Your task to perform on an android device: turn off notifications settings in the gmail app Image 0: 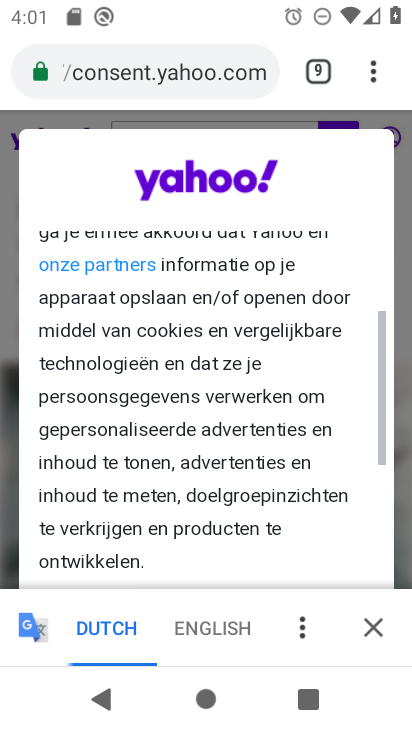
Step 0: press home button
Your task to perform on an android device: turn off notifications settings in the gmail app Image 1: 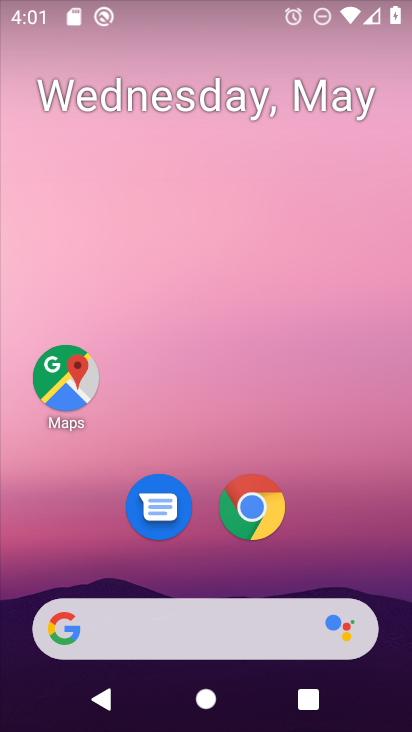
Step 1: drag from (327, 540) to (297, 211)
Your task to perform on an android device: turn off notifications settings in the gmail app Image 2: 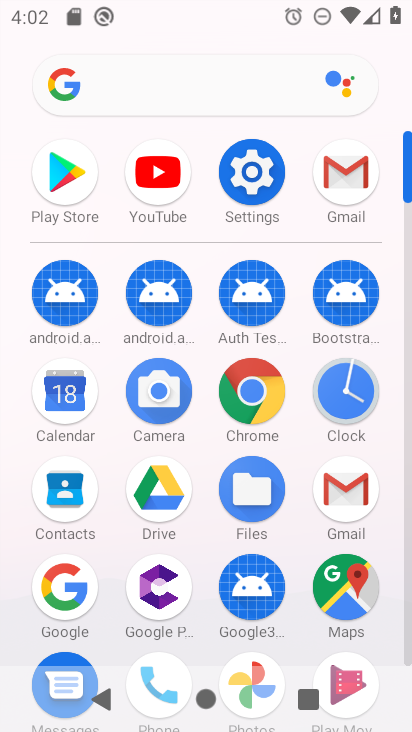
Step 2: drag from (353, 226) to (359, 146)
Your task to perform on an android device: turn off notifications settings in the gmail app Image 3: 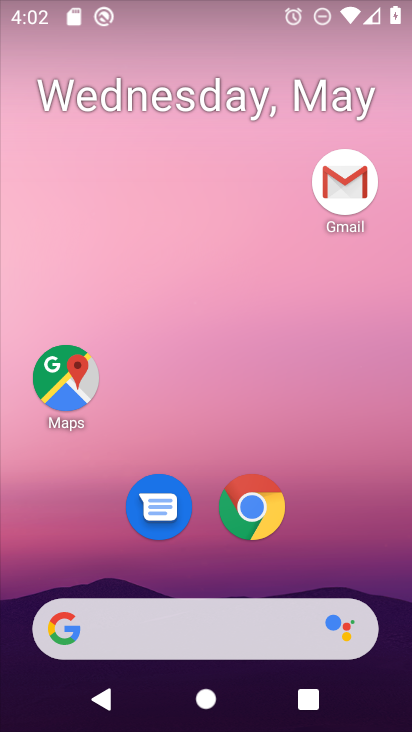
Step 3: click (351, 171)
Your task to perform on an android device: turn off notifications settings in the gmail app Image 4: 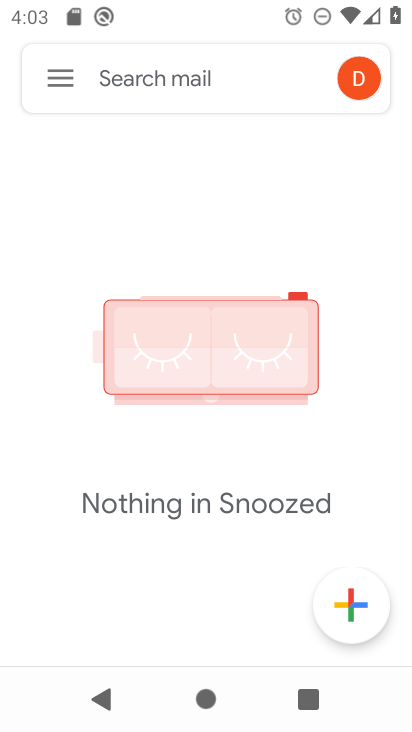
Step 4: click (65, 71)
Your task to perform on an android device: turn off notifications settings in the gmail app Image 5: 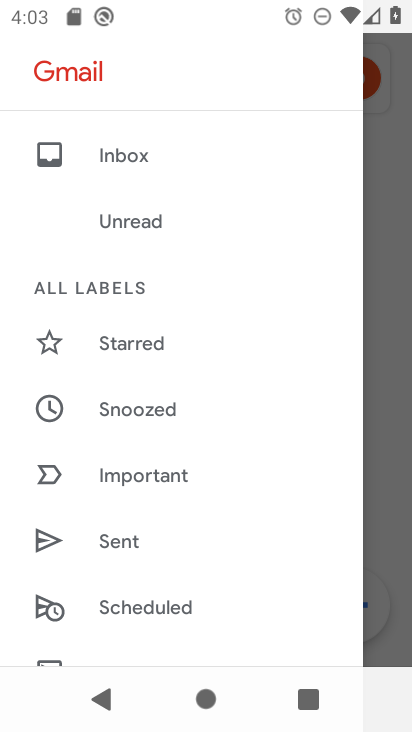
Step 5: drag from (235, 632) to (248, 342)
Your task to perform on an android device: turn off notifications settings in the gmail app Image 6: 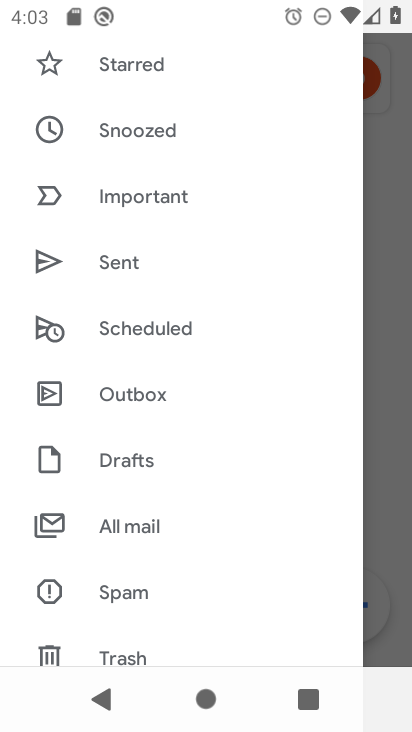
Step 6: drag from (252, 604) to (231, 297)
Your task to perform on an android device: turn off notifications settings in the gmail app Image 7: 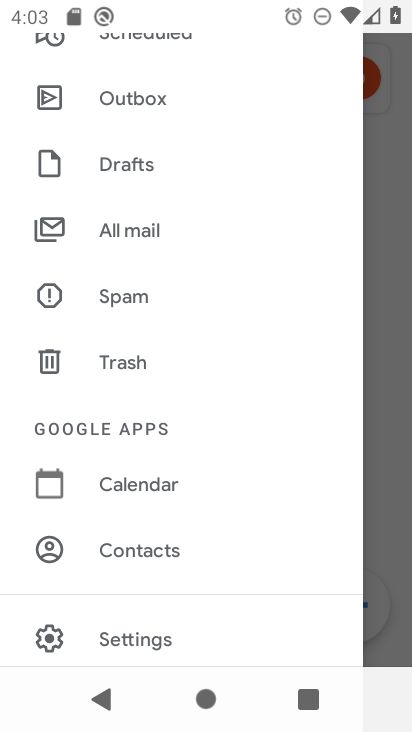
Step 7: click (124, 630)
Your task to perform on an android device: turn off notifications settings in the gmail app Image 8: 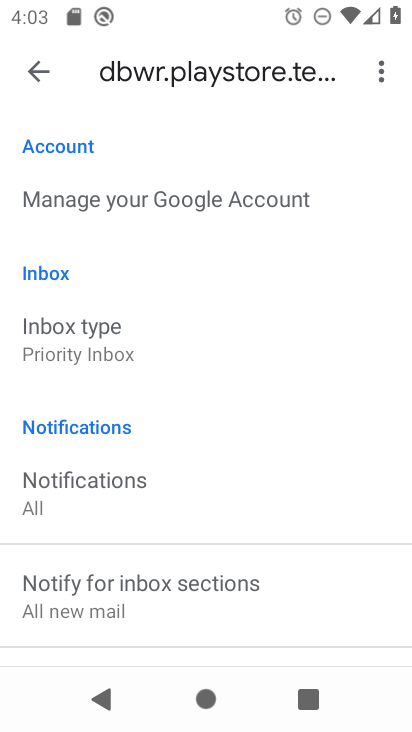
Step 8: drag from (158, 492) to (138, 312)
Your task to perform on an android device: turn off notifications settings in the gmail app Image 9: 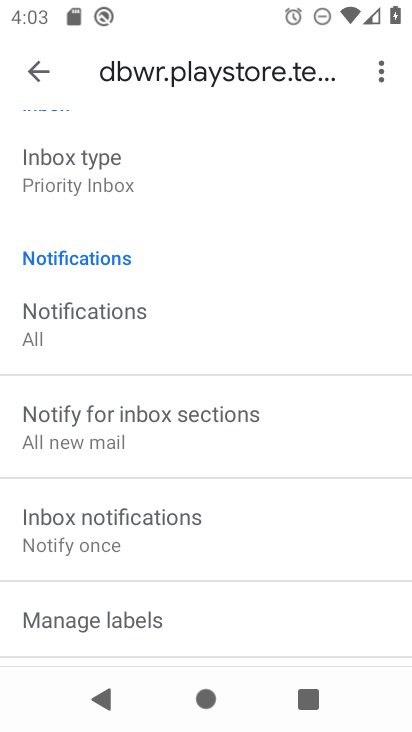
Step 9: drag from (206, 605) to (227, 304)
Your task to perform on an android device: turn off notifications settings in the gmail app Image 10: 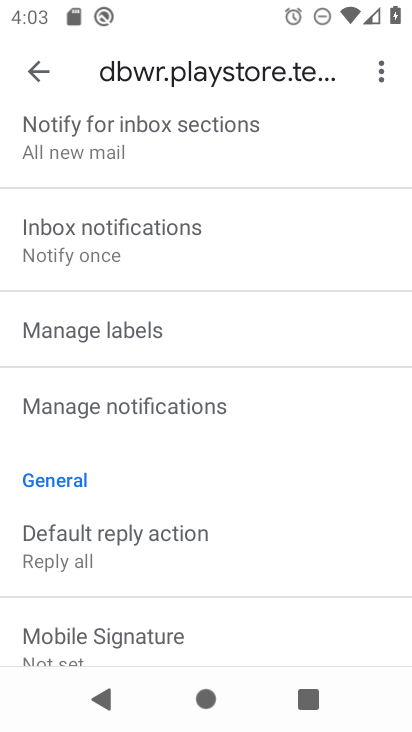
Step 10: click (174, 410)
Your task to perform on an android device: turn off notifications settings in the gmail app Image 11: 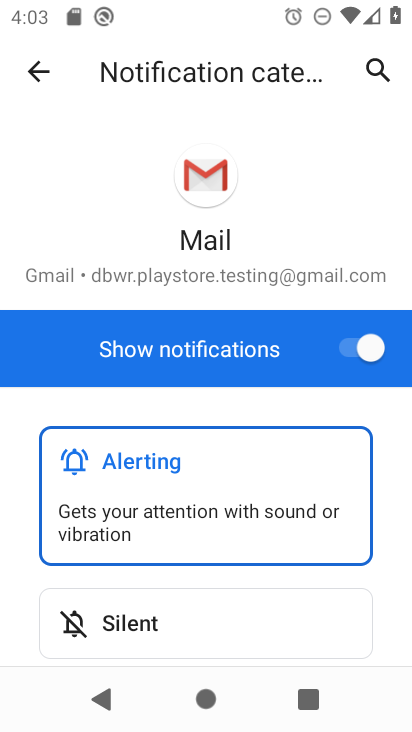
Step 11: click (347, 352)
Your task to perform on an android device: turn off notifications settings in the gmail app Image 12: 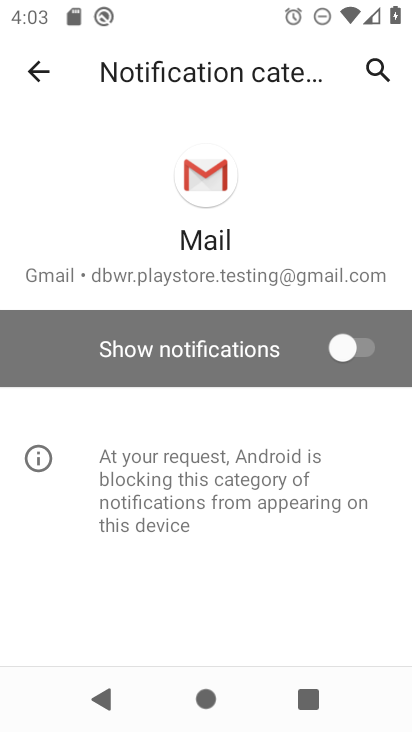
Step 12: task complete